Your task to perform on an android device: make emails show in primary in the gmail app Image 0: 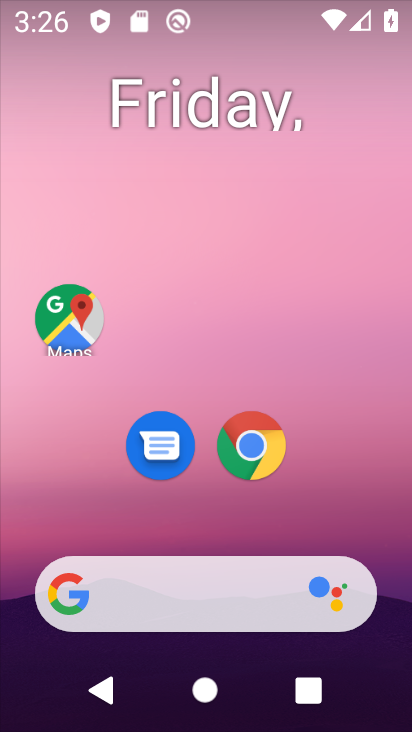
Step 0: drag from (180, 531) to (271, 57)
Your task to perform on an android device: make emails show in primary in the gmail app Image 1: 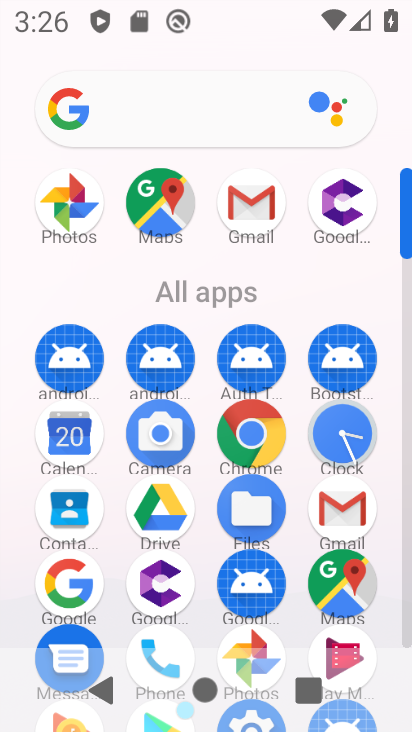
Step 1: click (334, 499)
Your task to perform on an android device: make emails show in primary in the gmail app Image 2: 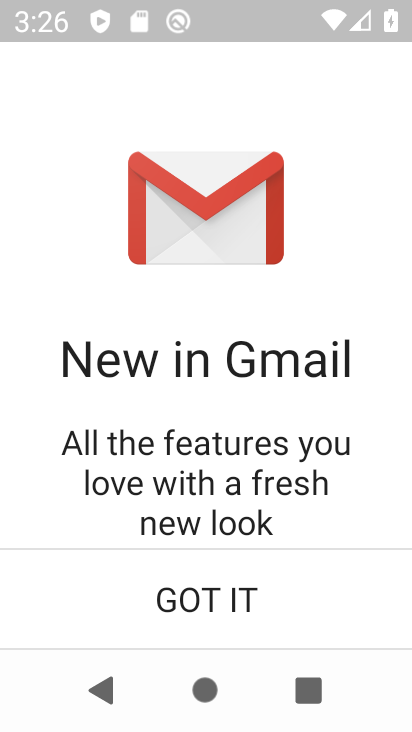
Step 2: click (213, 609)
Your task to perform on an android device: make emails show in primary in the gmail app Image 3: 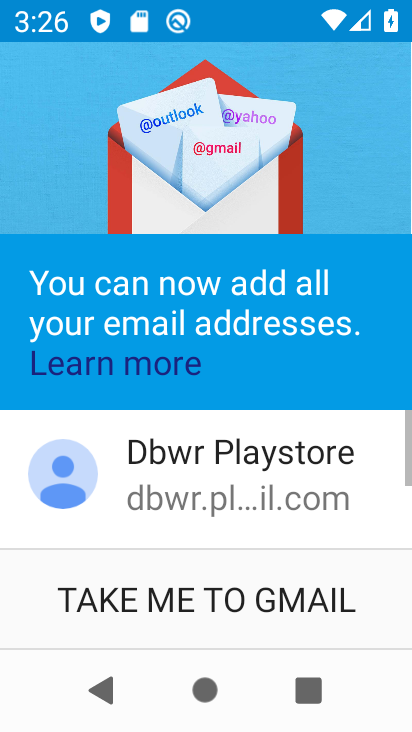
Step 3: click (211, 608)
Your task to perform on an android device: make emails show in primary in the gmail app Image 4: 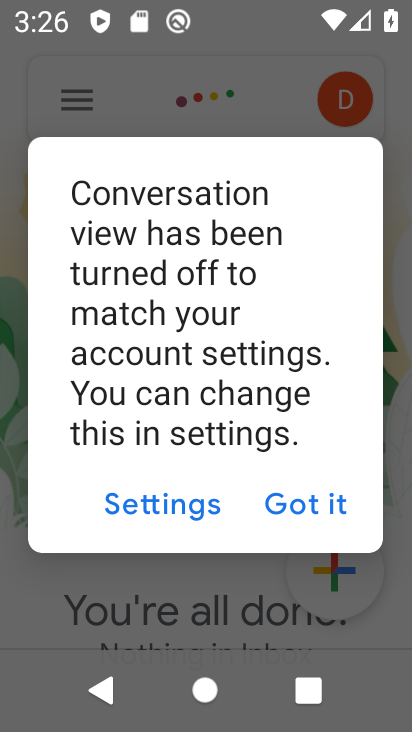
Step 4: click (295, 501)
Your task to perform on an android device: make emails show in primary in the gmail app Image 5: 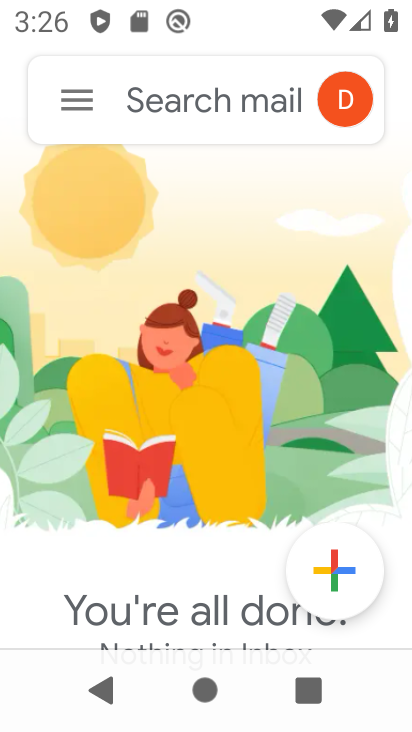
Step 5: click (79, 99)
Your task to perform on an android device: make emails show in primary in the gmail app Image 6: 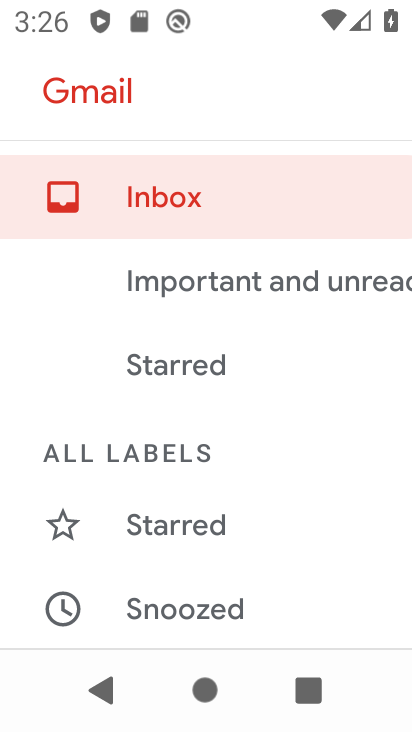
Step 6: drag from (161, 563) to (198, 164)
Your task to perform on an android device: make emails show in primary in the gmail app Image 7: 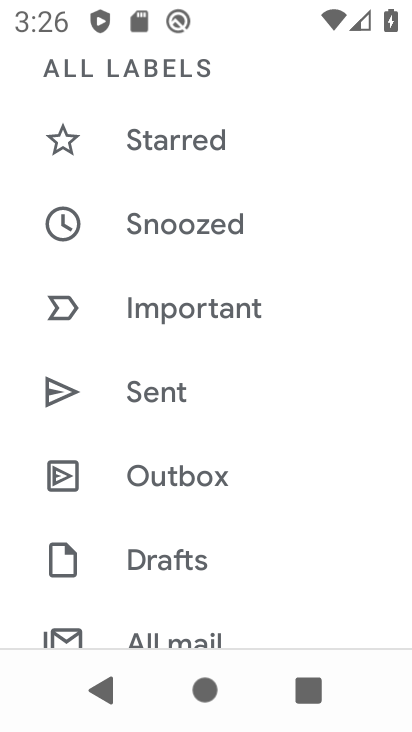
Step 7: drag from (163, 443) to (189, 215)
Your task to perform on an android device: make emails show in primary in the gmail app Image 8: 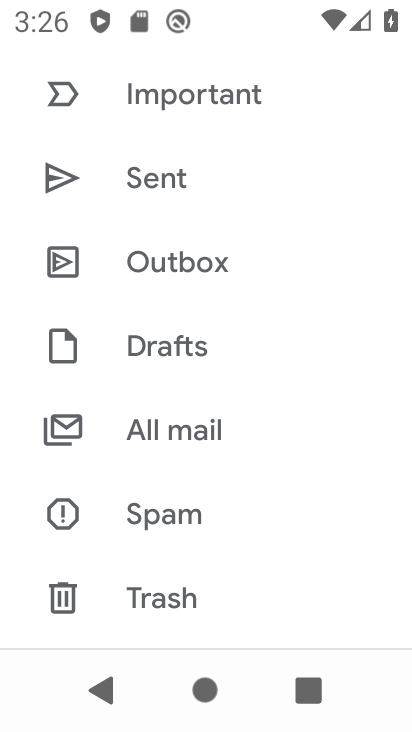
Step 8: drag from (147, 493) to (182, 143)
Your task to perform on an android device: make emails show in primary in the gmail app Image 9: 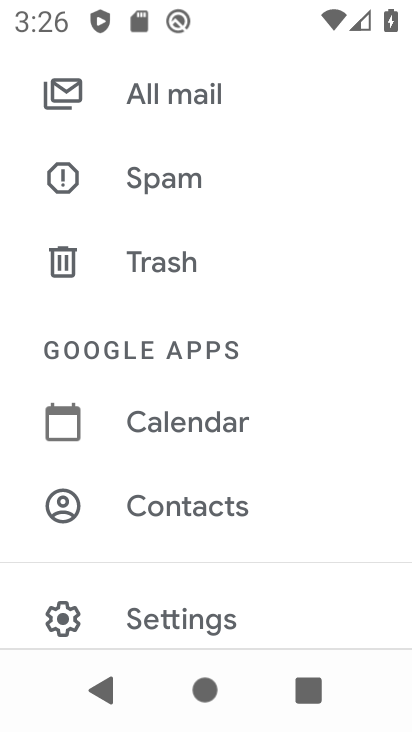
Step 9: click (168, 600)
Your task to perform on an android device: make emails show in primary in the gmail app Image 10: 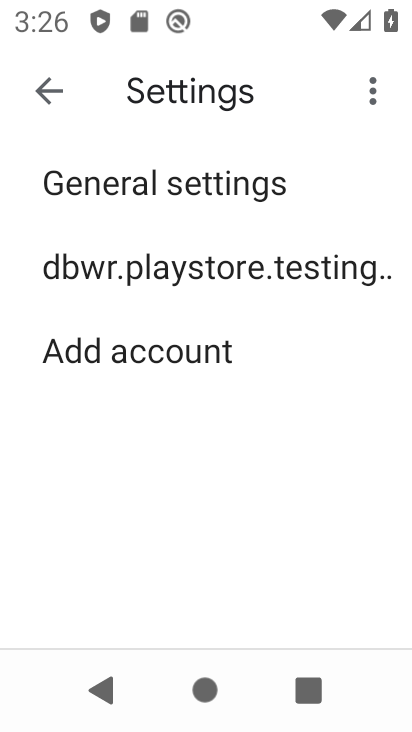
Step 10: click (167, 271)
Your task to perform on an android device: make emails show in primary in the gmail app Image 11: 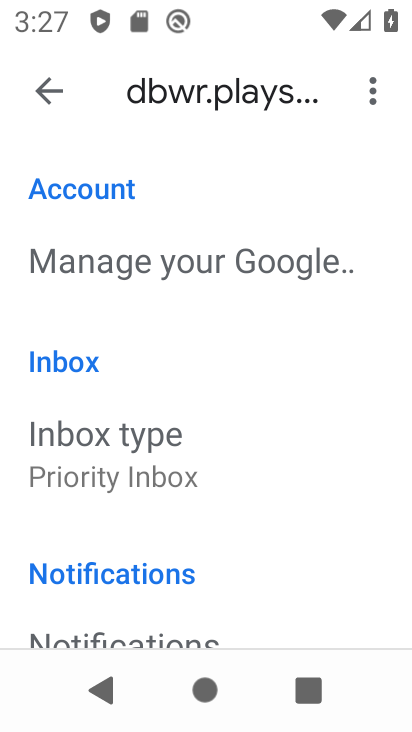
Step 11: click (152, 439)
Your task to perform on an android device: make emails show in primary in the gmail app Image 12: 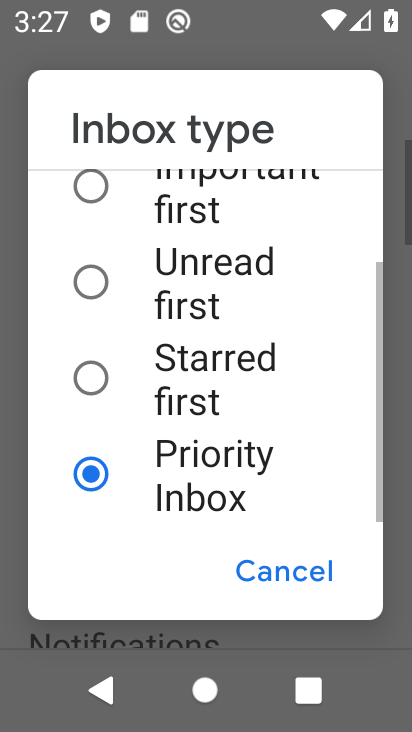
Step 12: drag from (154, 193) to (146, 466)
Your task to perform on an android device: make emails show in primary in the gmail app Image 13: 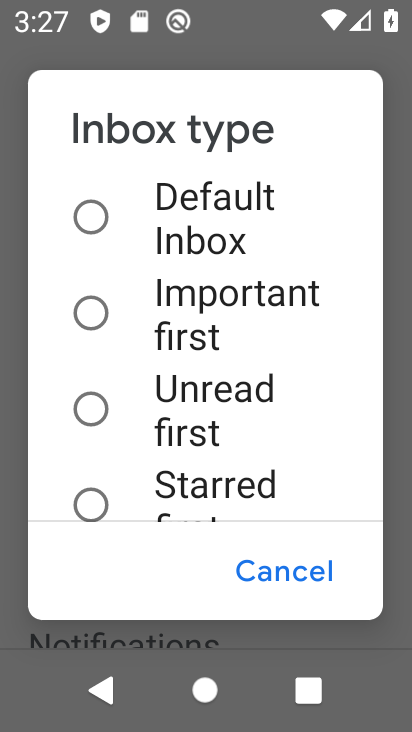
Step 13: drag from (174, 269) to (151, 540)
Your task to perform on an android device: make emails show in primary in the gmail app Image 14: 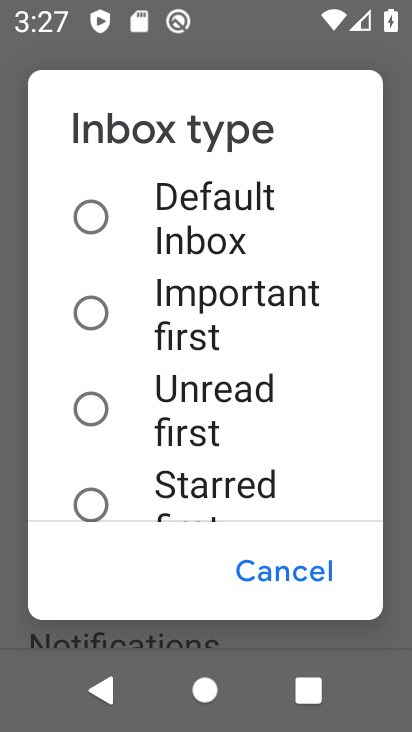
Step 14: click (107, 218)
Your task to perform on an android device: make emails show in primary in the gmail app Image 15: 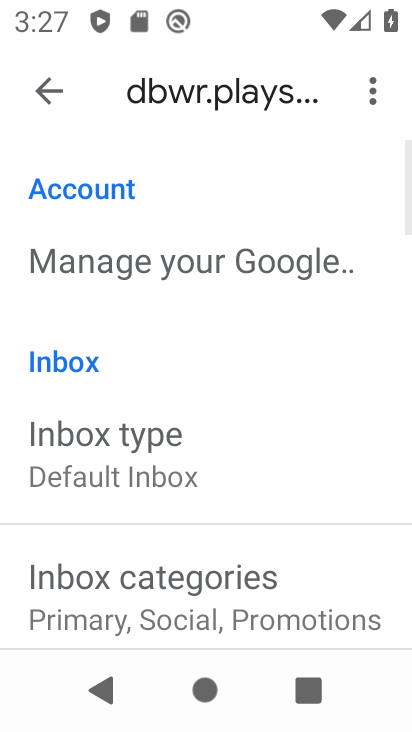
Step 15: click (98, 596)
Your task to perform on an android device: make emails show in primary in the gmail app Image 16: 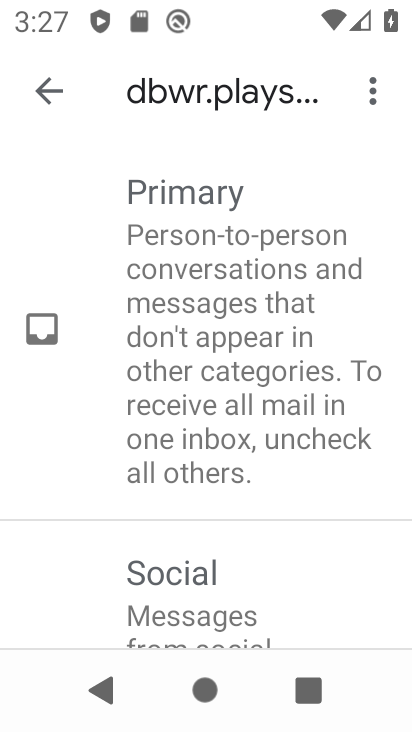
Step 16: drag from (229, 546) to (47, 316)
Your task to perform on an android device: make emails show in primary in the gmail app Image 17: 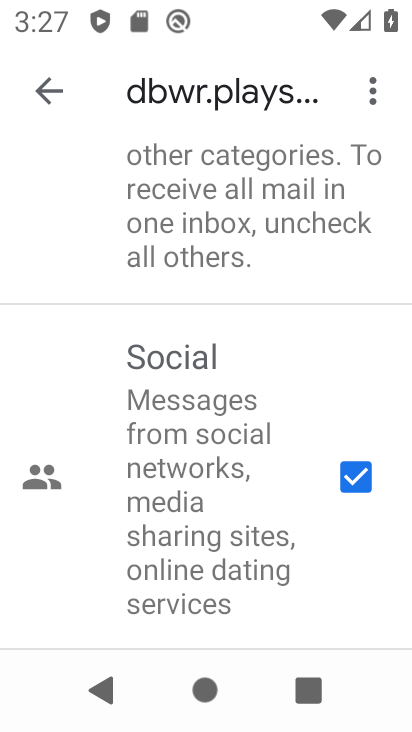
Step 17: click (327, 476)
Your task to perform on an android device: make emails show in primary in the gmail app Image 18: 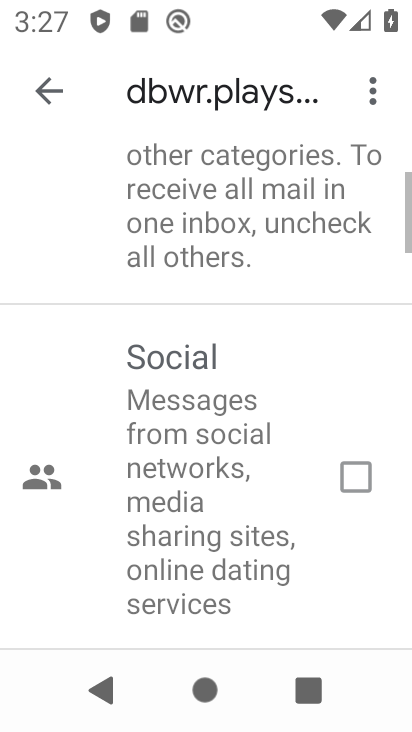
Step 18: drag from (265, 567) to (283, 2)
Your task to perform on an android device: make emails show in primary in the gmail app Image 19: 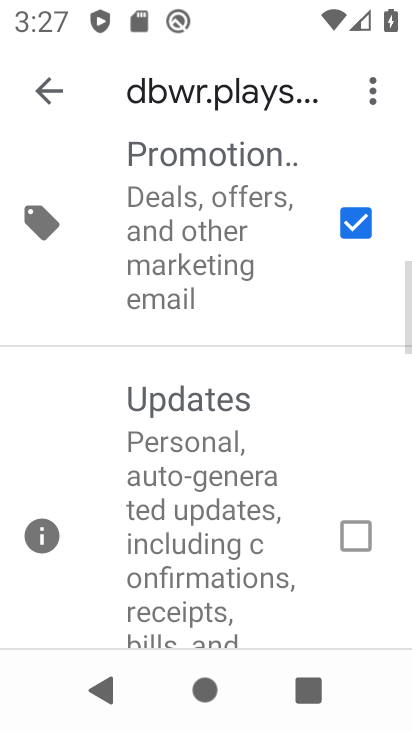
Step 19: click (354, 225)
Your task to perform on an android device: make emails show in primary in the gmail app Image 20: 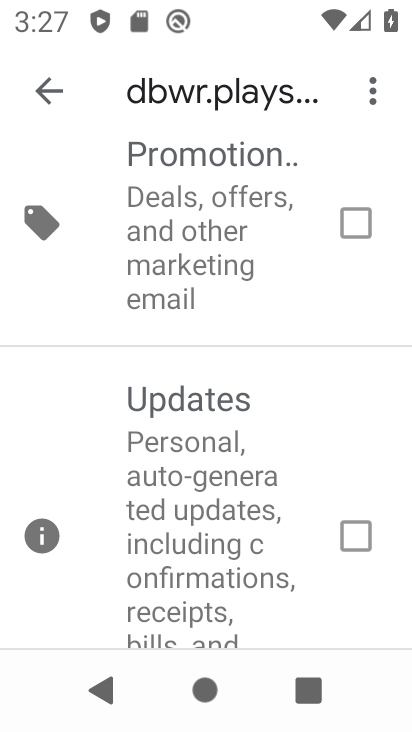
Step 20: task complete